Your task to perform on an android device: star an email in the gmail app Image 0: 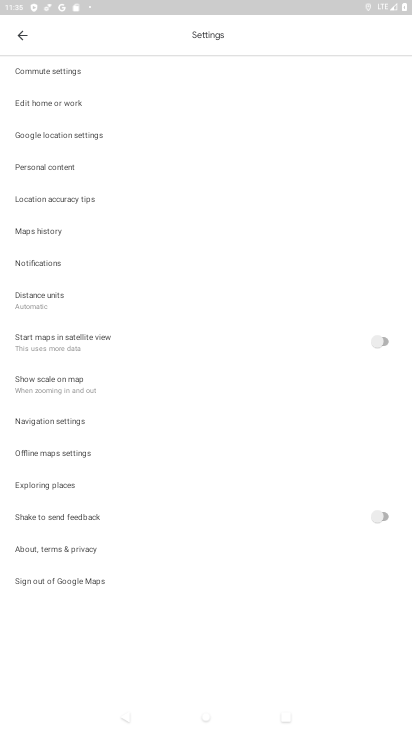
Step 0: click (117, 686)
Your task to perform on an android device: star an email in the gmail app Image 1: 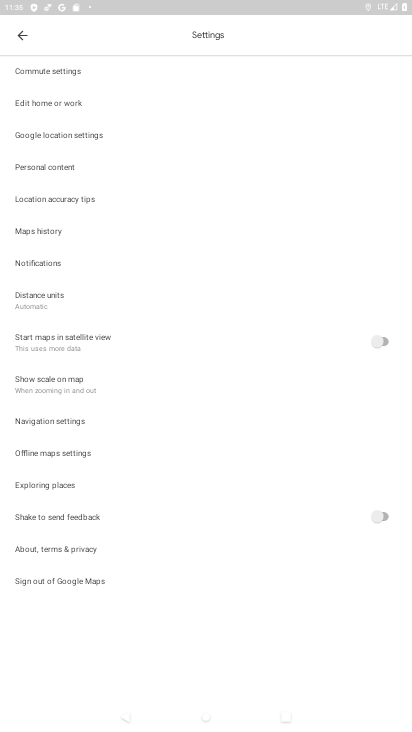
Step 1: press home button
Your task to perform on an android device: star an email in the gmail app Image 2: 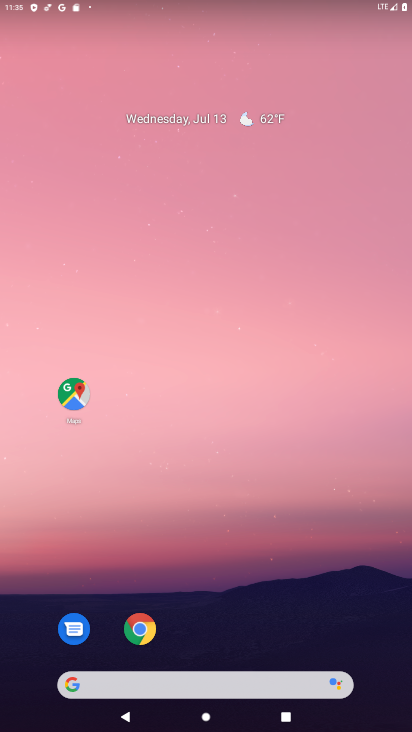
Step 2: drag from (233, 180) to (208, 31)
Your task to perform on an android device: star an email in the gmail app Image 3: 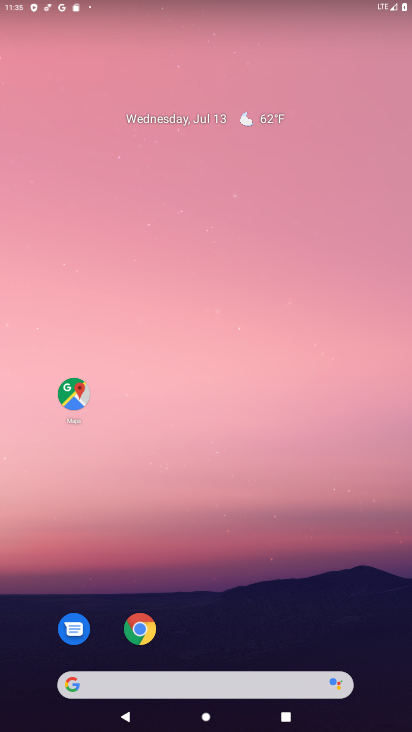
Step 3: drag from (254, 634) to (332, 6)
Your task to perform on an android device: star an email in the gmail app Image 4: 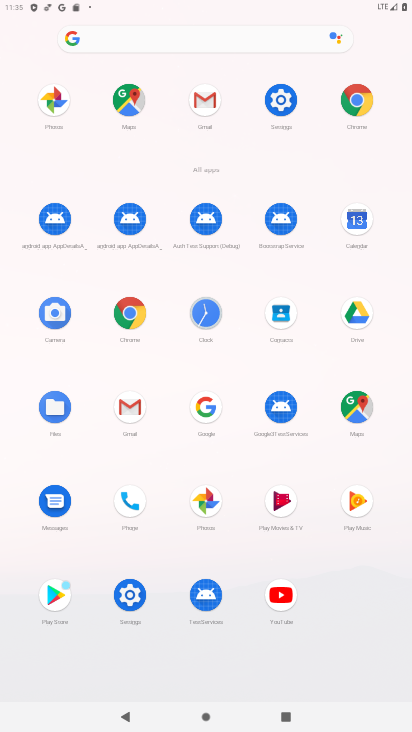
Step 4: click (202, 102)
Your task to perform on an android device: star an email in the gmail app Image 5: 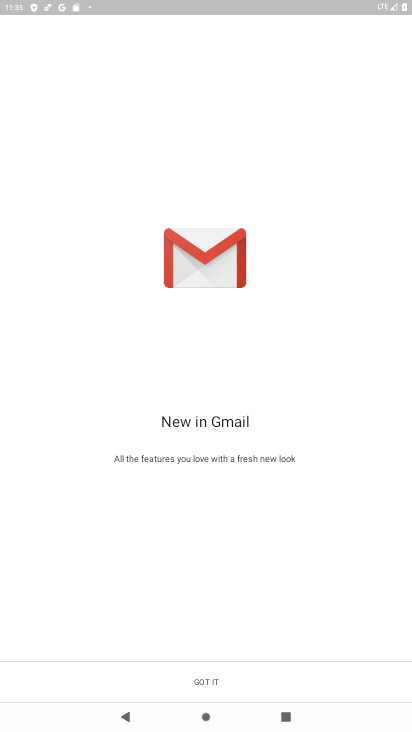
Step 5: click (217, 671)
Your task to perform on an android device: star an email in the gmail app Image 6: 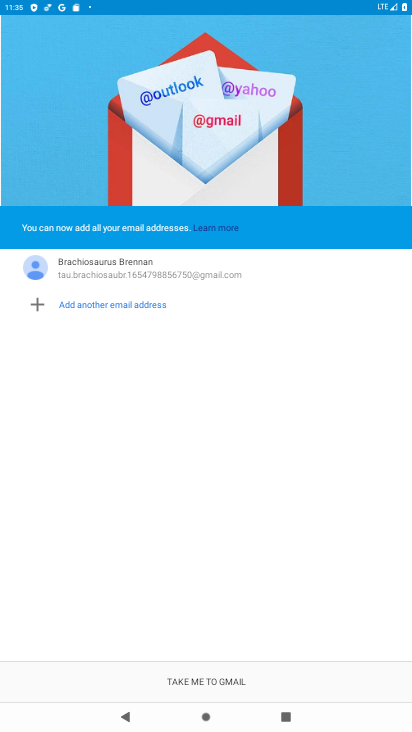
Step 6: click (192, 685)
Your task to perform on an android device: star an email in the gmail app Image 7: 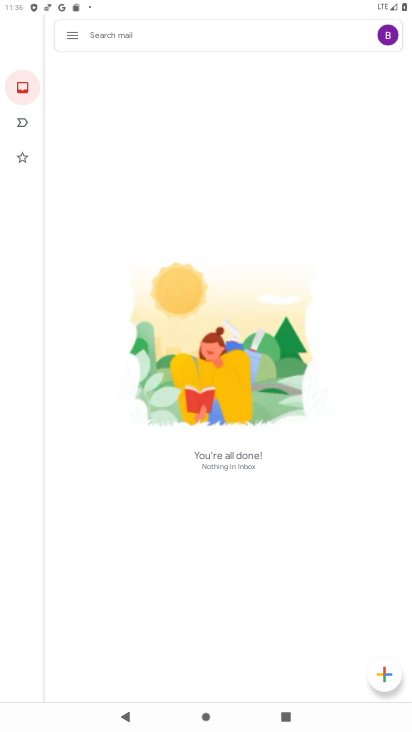
Step 7: task complete